Your task to perform on an android device: Open CNN.com Image 0: 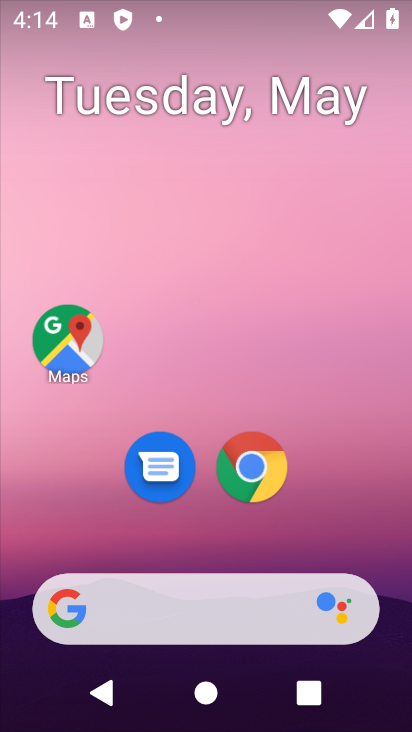
Step 0: click (178, 604)
Your task to perform on an android device: Open CNN.com Image 1: 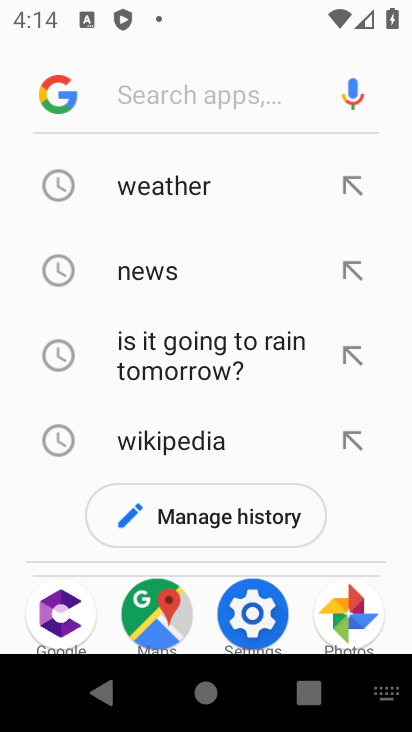
Step 1: type " CNN.com"
Your task to perform on an android device: Open CNN.com Image 2: 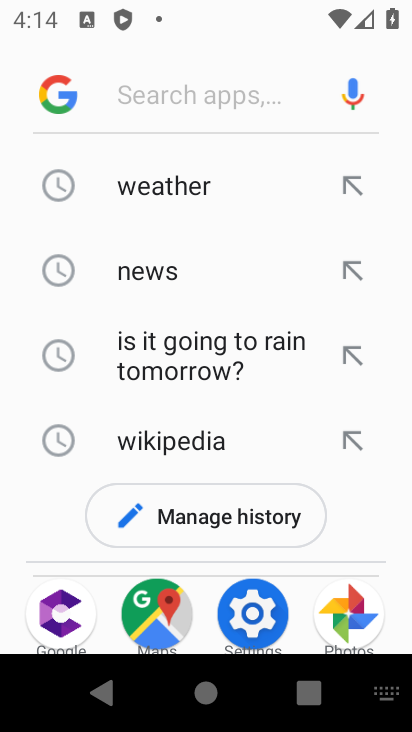
Step 2: click (201, 100)
Your task to perform on an android device: Open CNN.com Image 3: 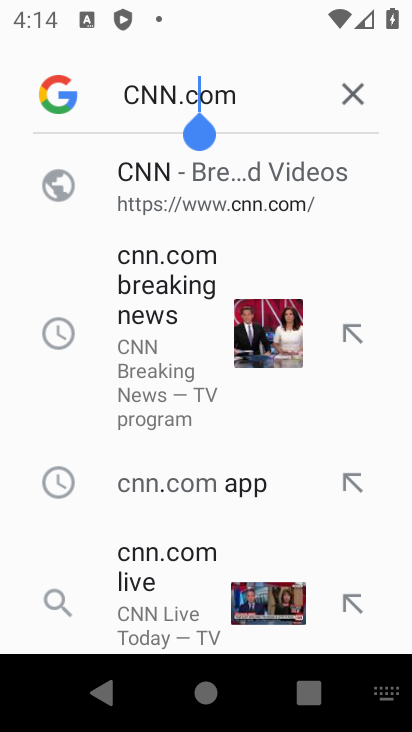
Step 3: click (147, 159)
Your task to perform on an android device: Open CNN.com Image 4: 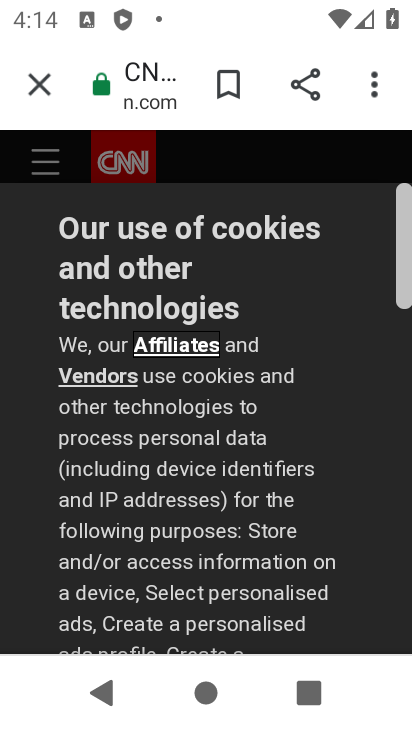
Step 4: task complete